Your task to perform on an android device: turn on bluetooth scan Image 0: 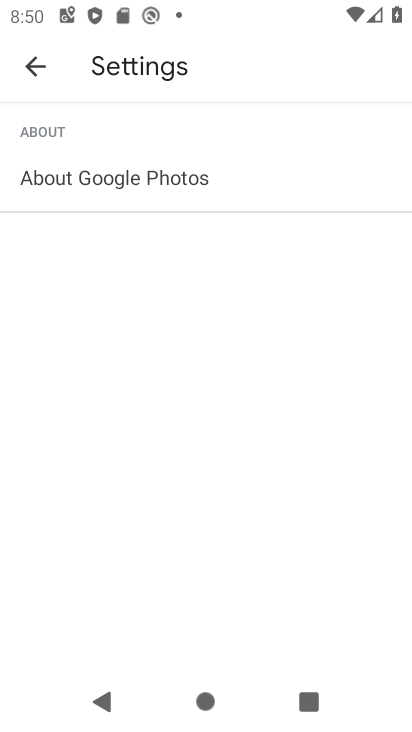
Step 0: press home button
Your task to perform on an android device: turn on bluetooth scan Image 1: 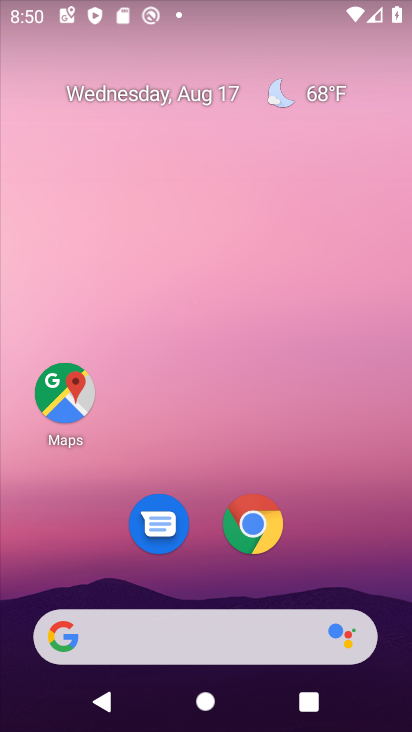
Step 1: drag from (338, 553) to (326, 4)
Your task to perform on an android device: turn on bluetooth scan Image 2: 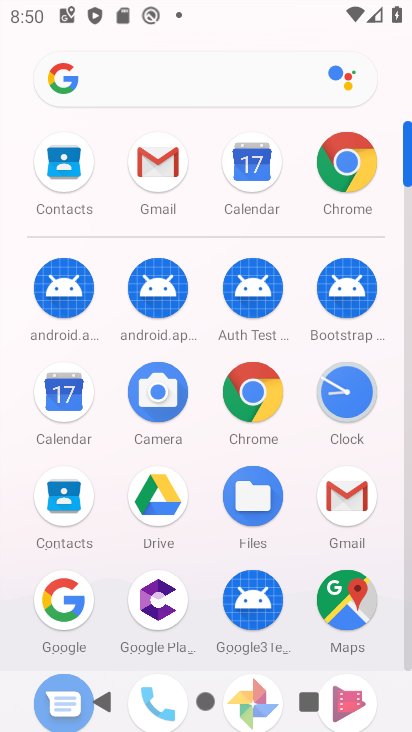
Step 2: drag from (203, 471) to (236, 93)
Your task to perform on an android device: turn on bluetooth scan Image 3: 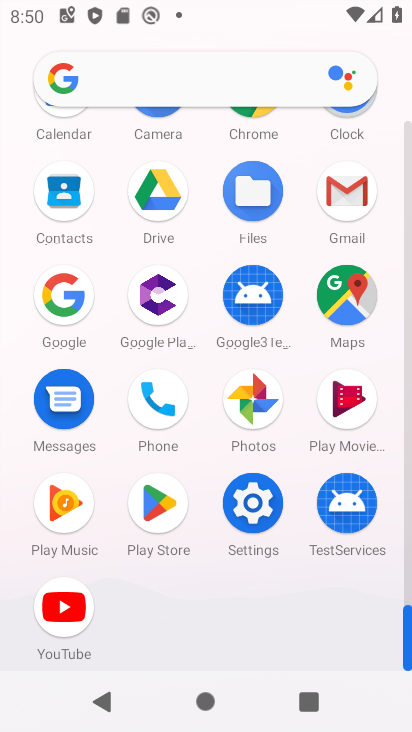
Step 3: click (254, 502)
Your task to perform on an android device: turn on bluetooth scan Image 4: 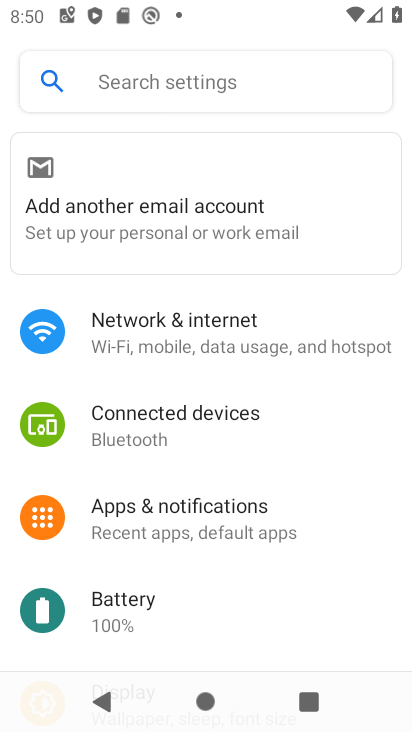
Step 4: drag from (246, 577) to (237, 98)
Your task to perform on an android device: turn on bluetooth scan Image 5: 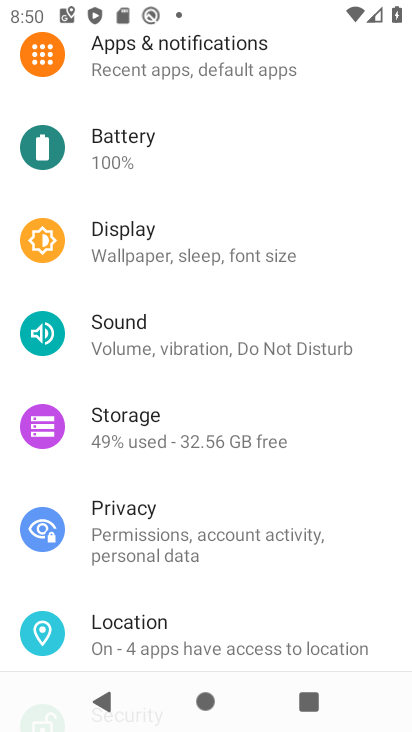
Step 5: drag from (210, 487) to (223, 140)
Your task to perform on an android device: turn on bluetooth scan Image 6: 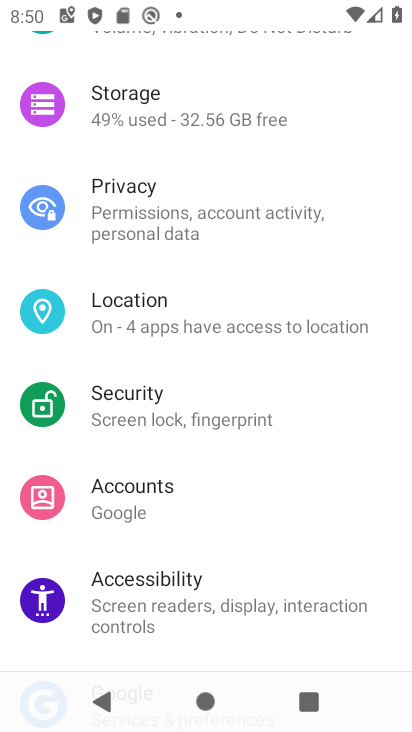
Step 6: click (229, 320)
Your task to perform on an android device: turn on bluetooth scan Image 7: 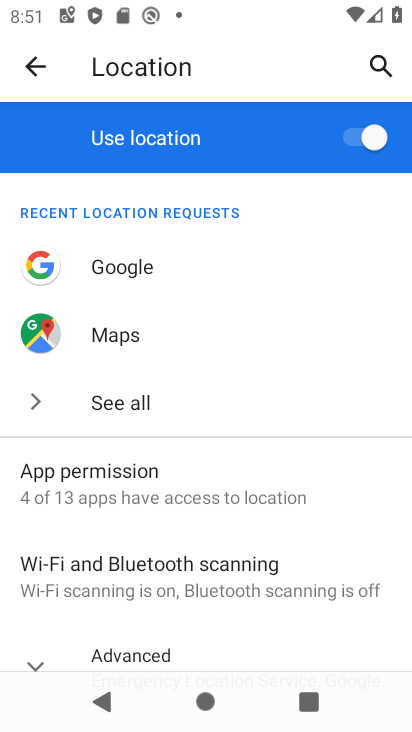
Step 7: drag from (236, 362) to (238, 49)
Your task to perform on an android device: turn on bluetooth scan Image 8: 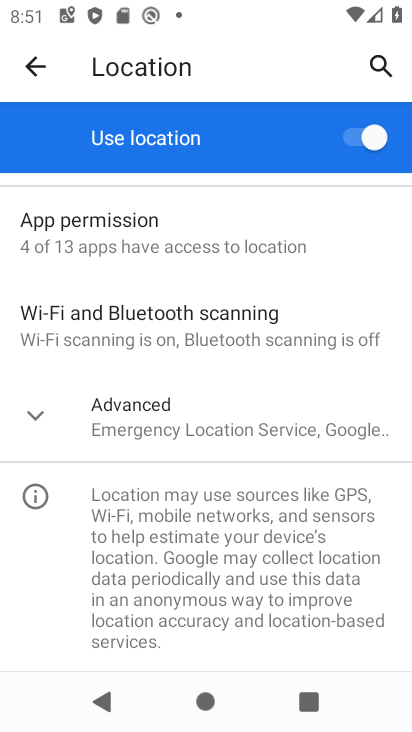
Step 8: click (247, 314)
Your task to perform on an android device: turn on bluetooth scan Image 9: 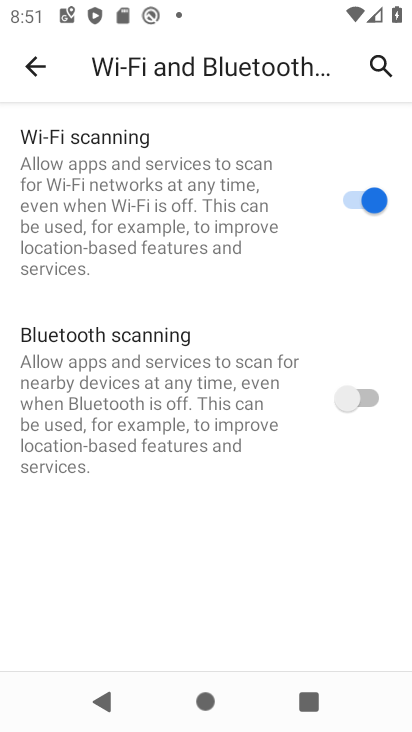
Step 9: click (358, 398)
Your task to perform on an android device: turn on bluetooth scan Image 10: 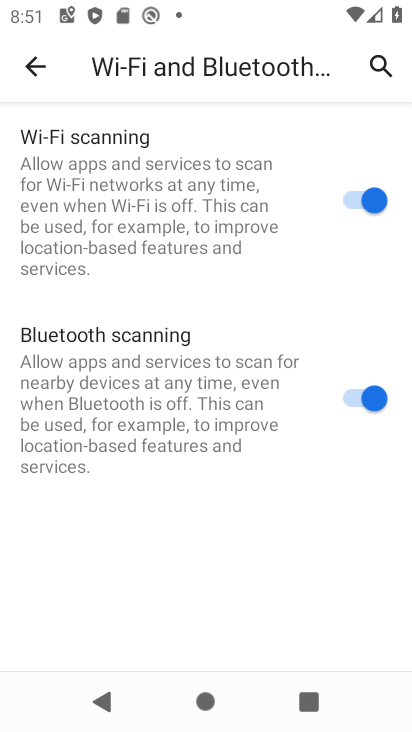
Step 10: task complete